Your task to perform on an android device: see sites visited before in the chrome app Image 0: 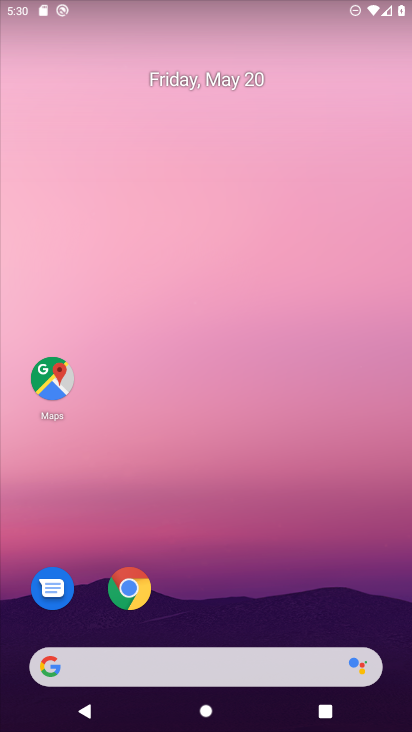
Step 0: drag from (230, 478) to (249, 85)
Your task to perform on an android device: see sites visited before in the chrome app Image 1: 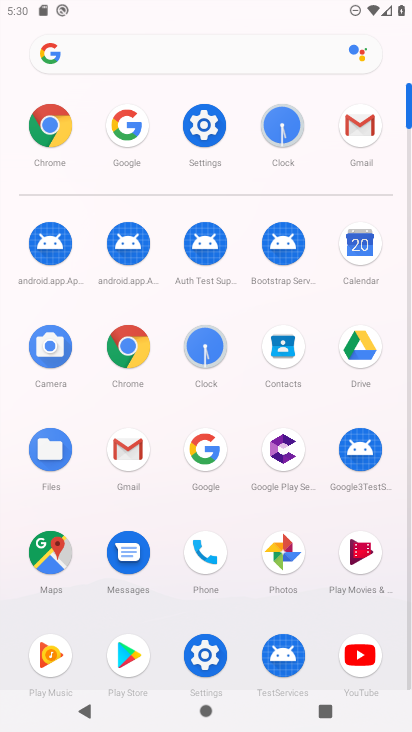
Step 1: click (47, 166)
Your task to perform on an android device: see sites visited before in the chrome app Image 2: 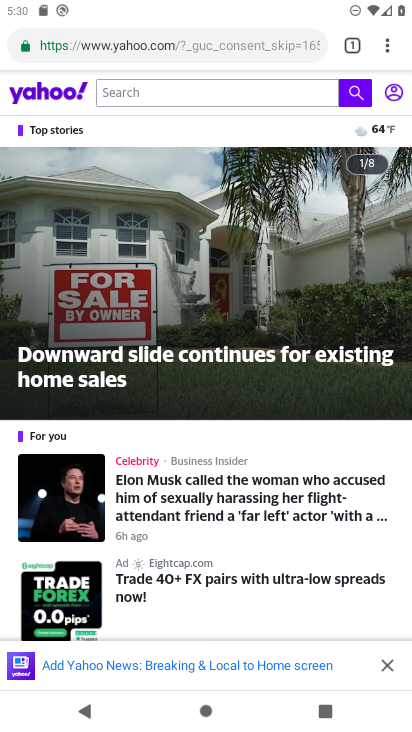
Step 2: click (386, 50)
Your task to perform on an android device: see sites visited before in the chrome app Image 3: 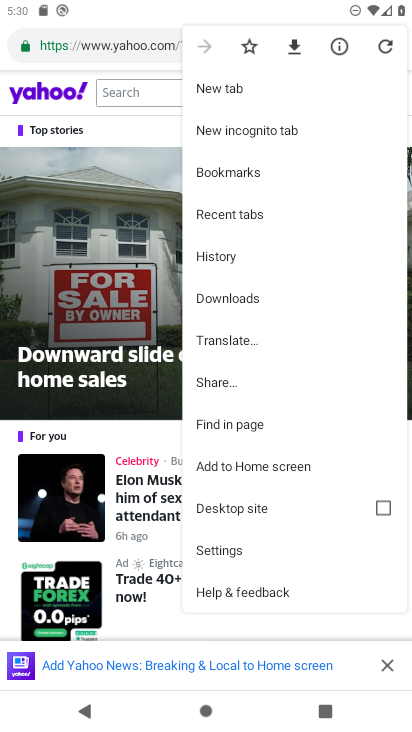
Step 3: click (234, 256)
Your task to perform on an android device: see sites visited before in the chrome app Image 4: 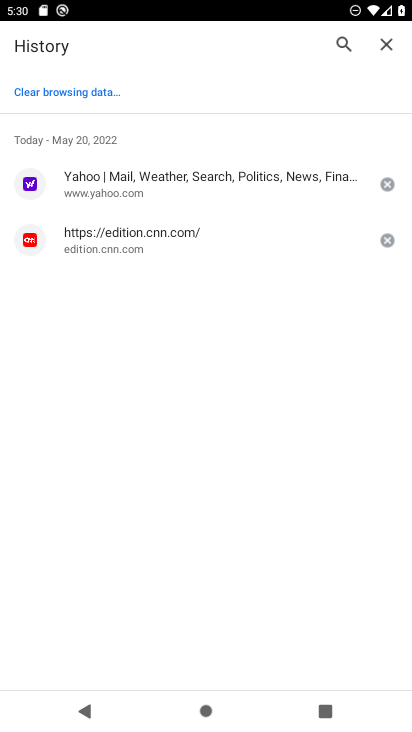
Step 4: task complete